Your task to perform on an android device: turn pop-ups off in chrome Image 0: 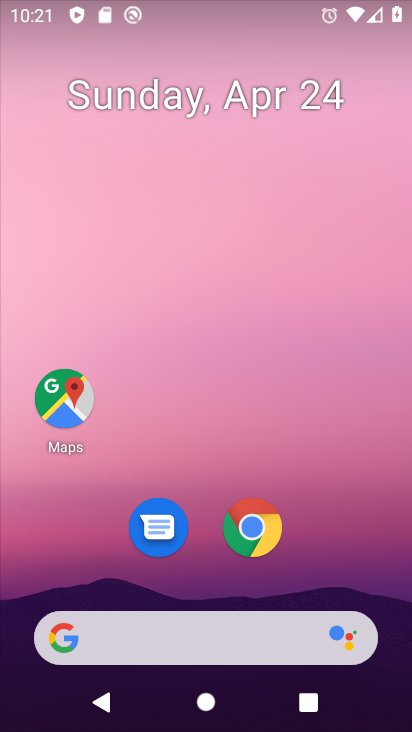
Step 0: click (253, 526)
Your task to perform on an android device: turn pop-ups off in chrome Image 1: 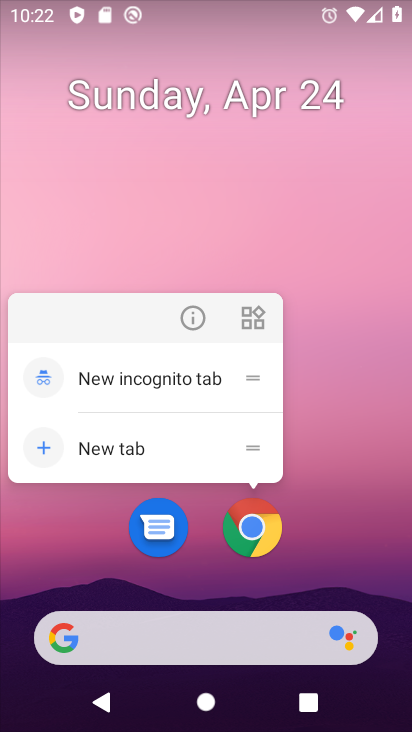
Step 1: click (264, 526)
Your task to perform on an android device: turn pop-ups off in chrome Image 2: 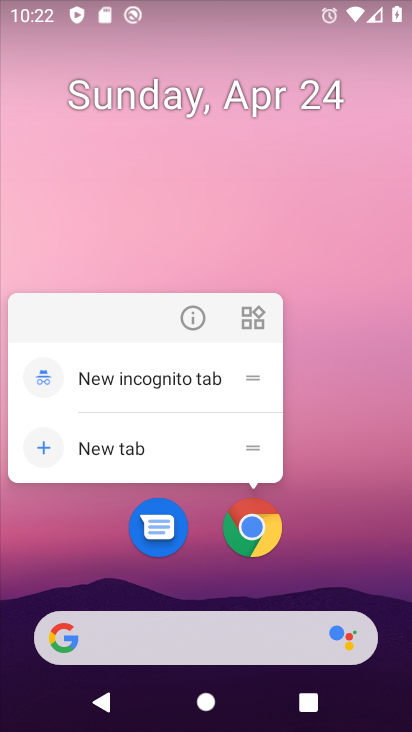
Step 2: click (258, 508)
Your task to perform on an android device: turn pop-ups off in chrome Image 3: 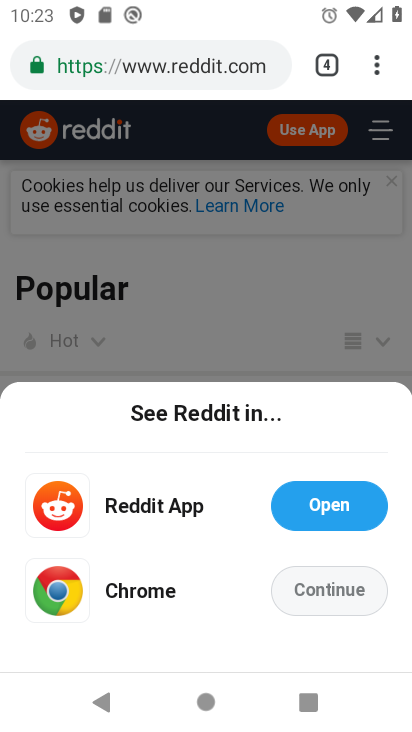
Step 3: click (372, 59)
Your task to perform on an android device: turn pop-ups off in chrome Image 4: 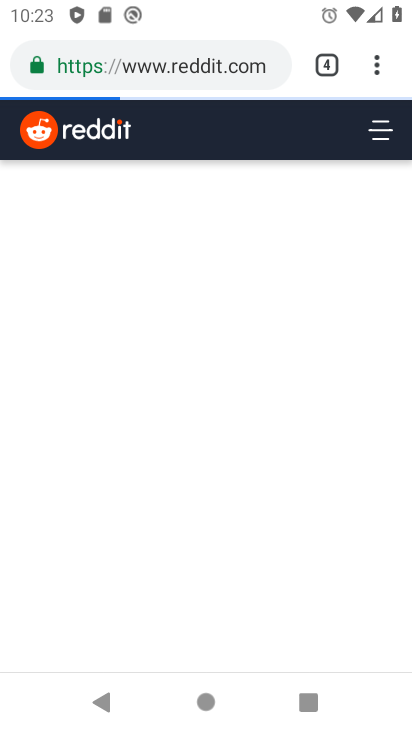
Step 4: click (374, 61)
Your task to perform on an android device: turn pop-ups off in chrome Image 5: 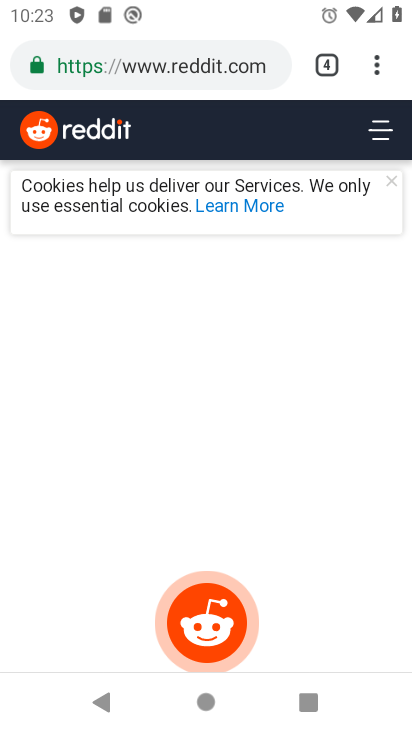
Step 5: drag from (374, 51) to (179, 571)
Your task to perform on an android device: turn pop-ups off in chrome Image 6: 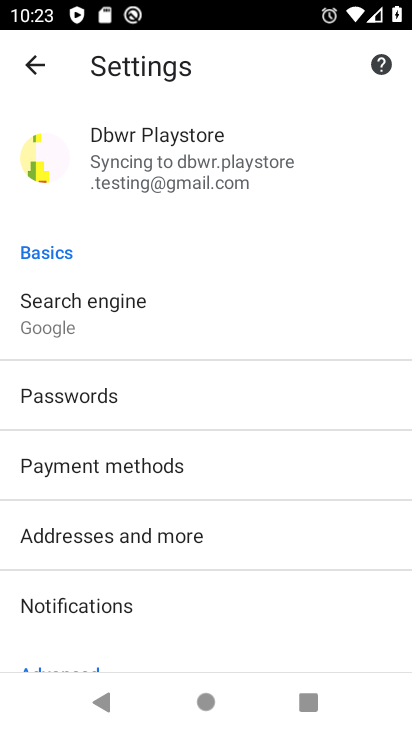
Step 6: drag from (174, 581) to (306, 223)
Your task to perform on an android device: turn pop-ups off in chrome Image 7: 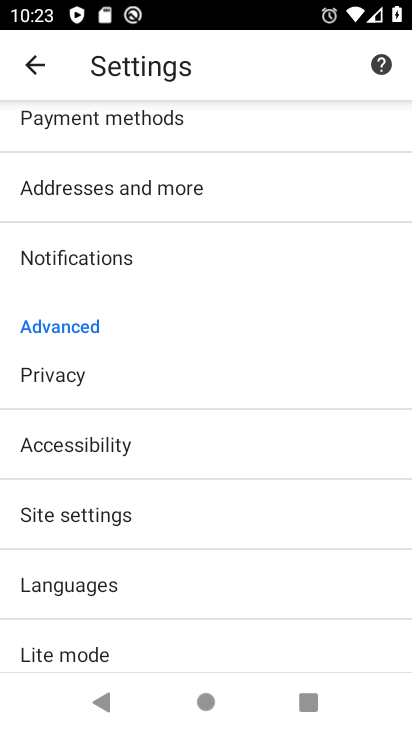
Step 7: click (100, 511)
Your task to perform on an android device: turn pop-ups off in chrome Image 8: 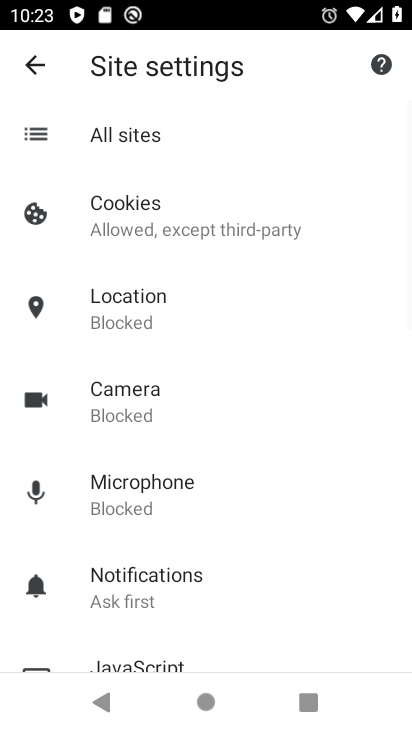
Step 8: drag from (146, 625) to (222, 152)
Your task to perform on an android device: turn pop-ups off in chrome Image 9: 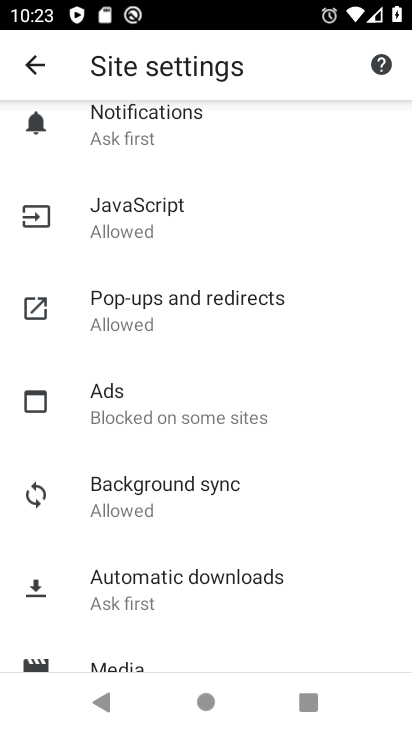
Step 9: click (147, 302)
Your task to perform on an android device: turn pop-ups off in chrome Image 10: 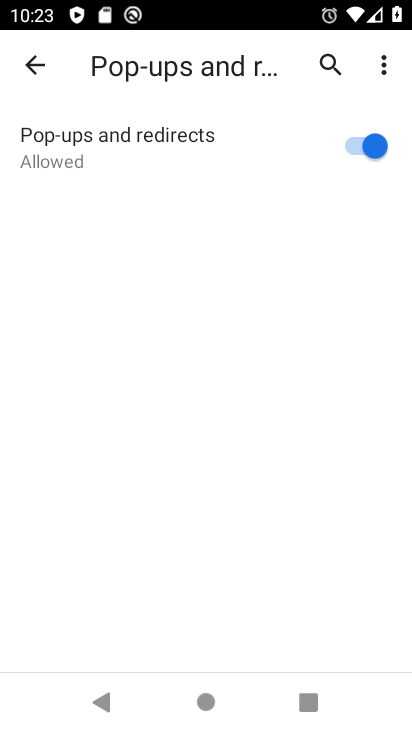
Step 10: click (371, 138)
Your task to perform on an android device: turn pop-ups off in chrome Image 11: 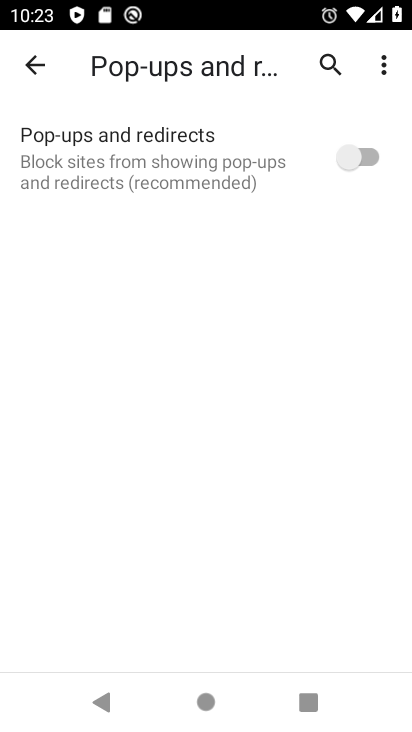
Step 11: task complete